Your task to perform on an android device: Open Google Chrome and click the shortcut for Amazon.com Image 0: 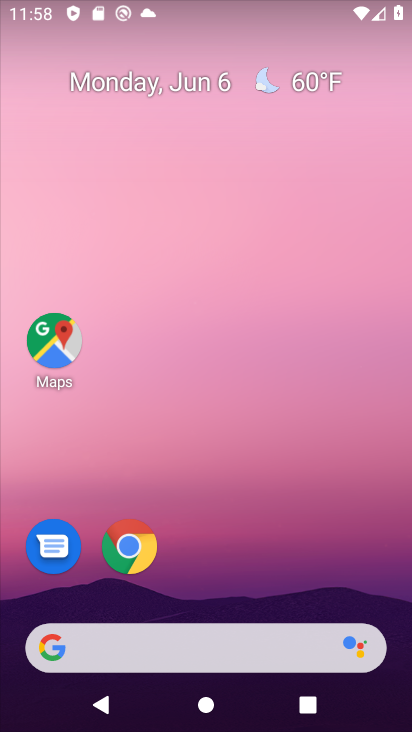
Step 0: drag from (212, 528) to (218, 303)
Your task to perform on an android device: Open Google Chrome and click the shortcut for Amazon.com Image 1: 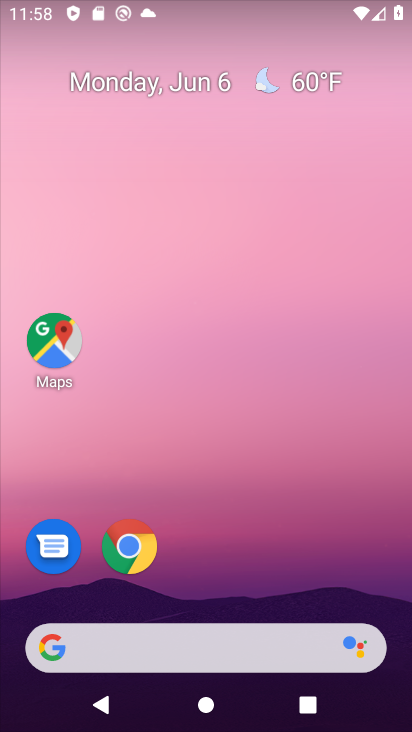
Step 1: drag from (196, 587) to (273, 134)
Your task to perform on an android device: Open Google Chrome and click the shortcut for Amazon.com Image 2: 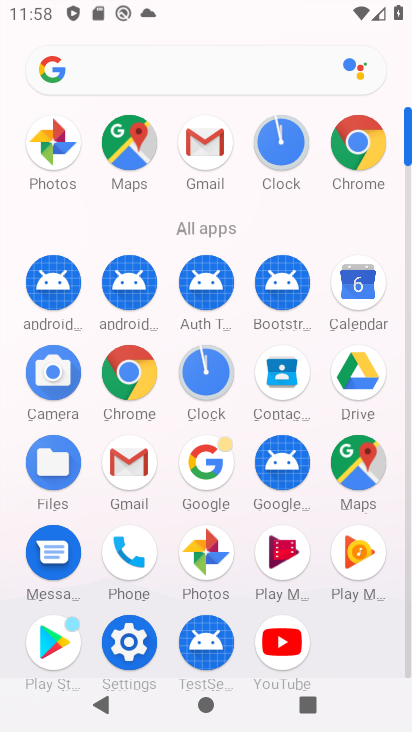
Step 2: click (361, 129)
Your task to perform on an android device: Open Google Chrome and click the shortcut for Amazon.com Image 3: 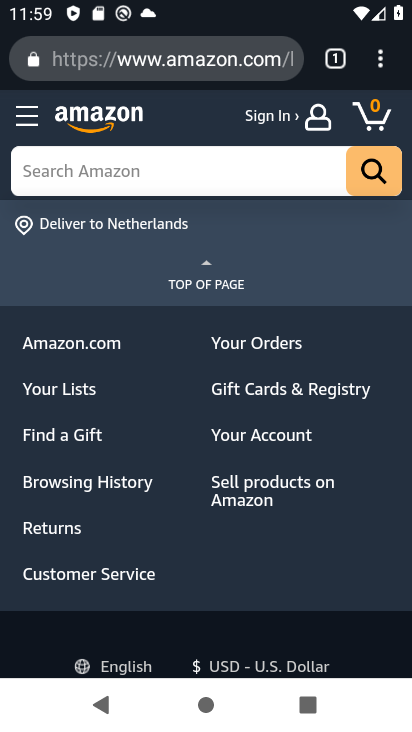
Step 3: task complete